Your task to perform on an android device: open device folders in google photos Image 0: 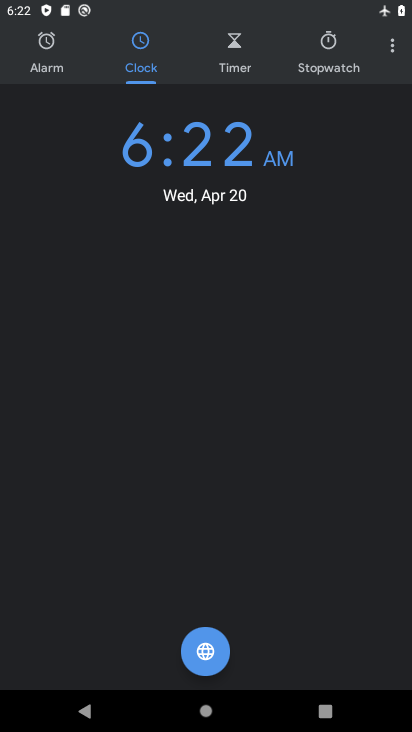
Step 0: press home button
Your task to perform on an android device: open device folders in google photos Image 1: 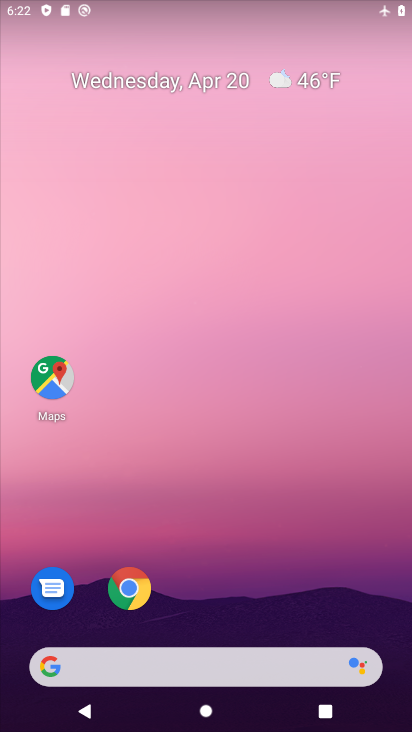
Step 1: drag from (236, 631) to (195, 1)
Your task to perform on an android device: open device folders in google photos Image 2: 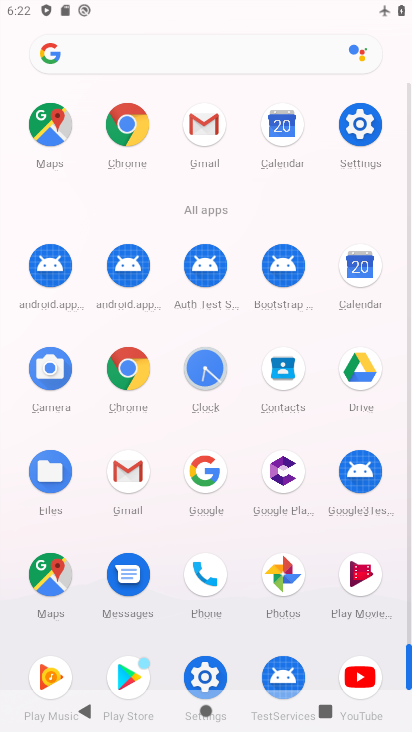
Step 2: drag from (405, 647) to (392, 709)
Your task to perform on an android device: open device folders in google photos Image 3: 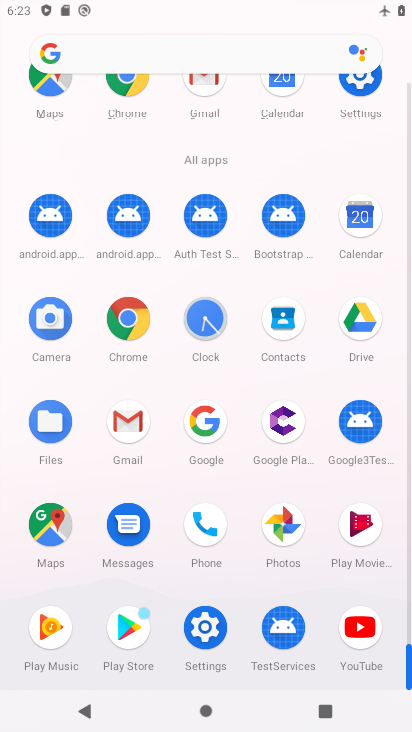
Step 3: click (287, 535)
Your task to perform on an android device: open device folders in google photos Image 4: 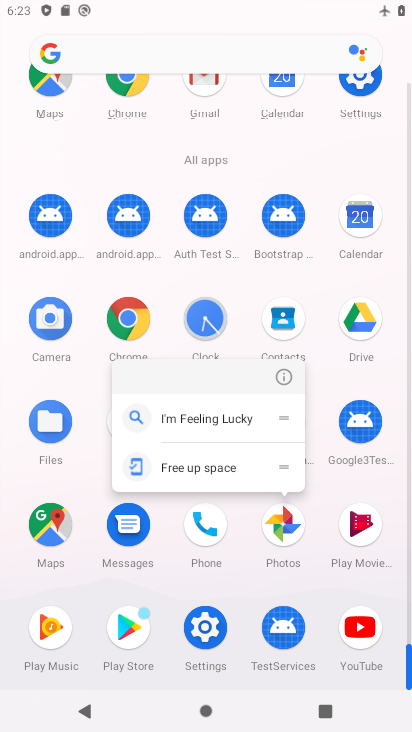
Step 4: click (287, 535)
Your task to perform on an android device: open device folders in google photos Image 5: 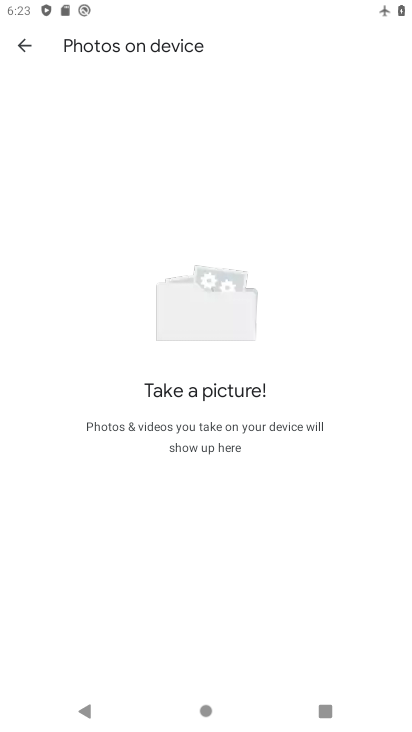
Step 5: click (28, 51)
Your task to perform on an android device: open device folders in google photos Image 6: 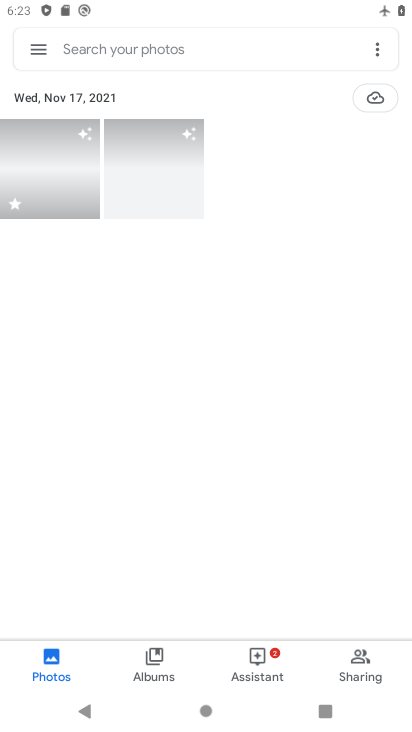
Step 6: click (166, 667)
Your task to perform on an android device: open device folders in google photos Image 7: 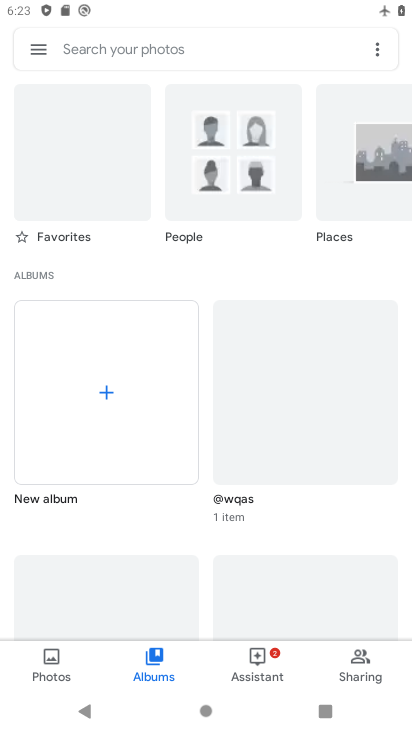
Step 7: task complete